Your task to perform on an android device: Show me the alarms in the clock app Image 0: 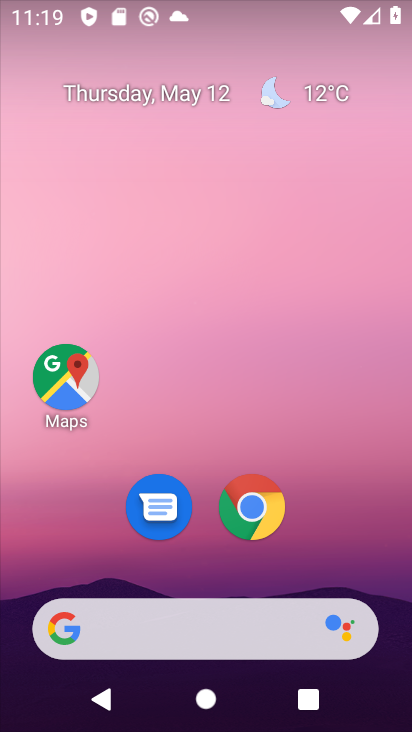
Step 0: drag from (199, 576) to (267, 0)
Your task to perform on an android device: Show me the alarms in the clock app Image 1: 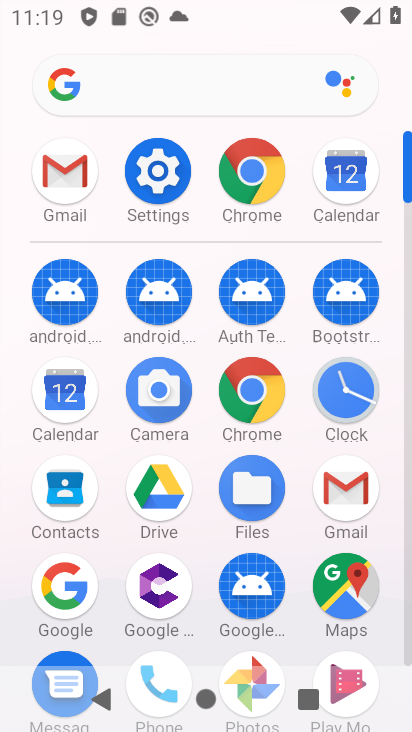
Step 1: click (346, 407)
Your task to perform on an android device: Show me the alarms in the clock app Image 2: 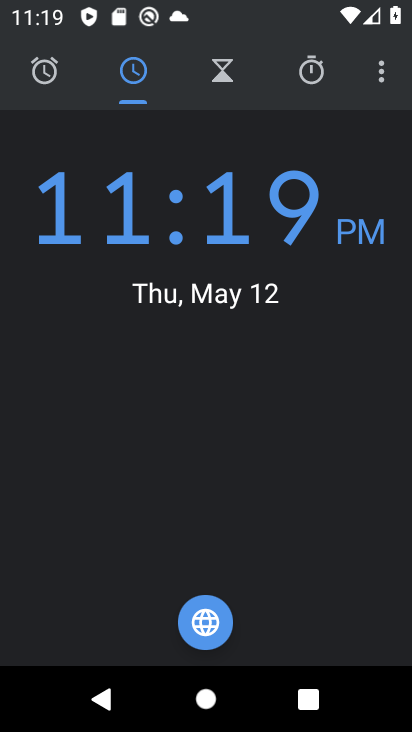
Step 2: click (58, 76)
Your task to perform on an android device: Show me the alarms in the clock app Image 3: 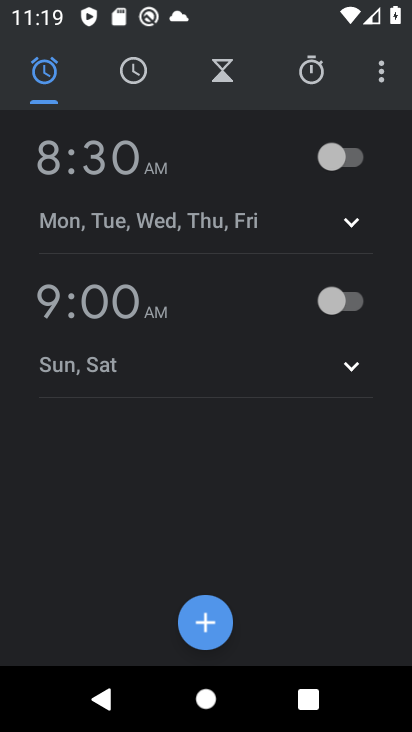
Step 3: task complete